Your task to perform on an android device: open a new tab in the chrome app Image 0: 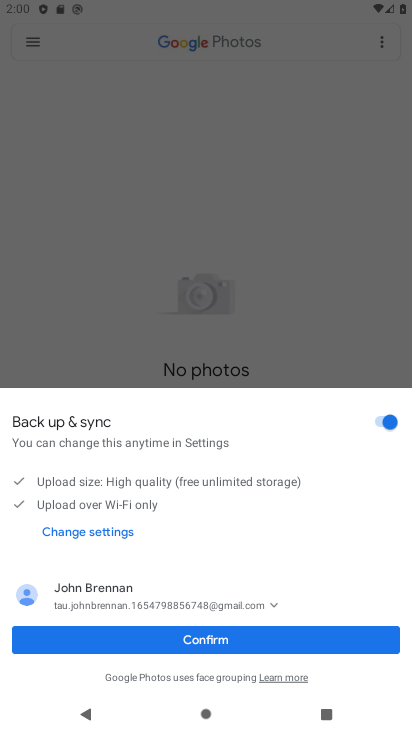
Step 0: press home button
Your task to perform on an android device: open a new tab in the chrome app Image 1: 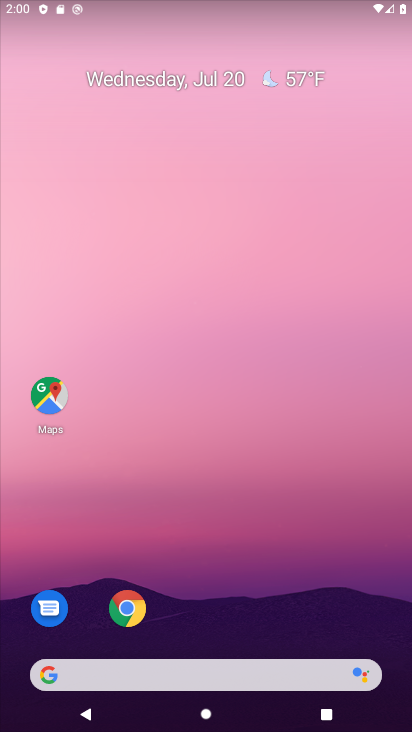
Step 1: click (126, 611)
Your task to perform on an android device: open a new tab in the chrome app Image 2: 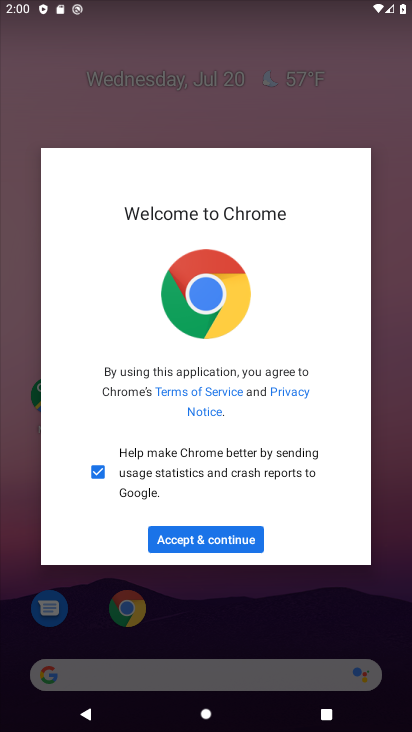
Step 2: click (200, 535)
Your task to perform on an android device: open a new tab in the chrome app Image 3: 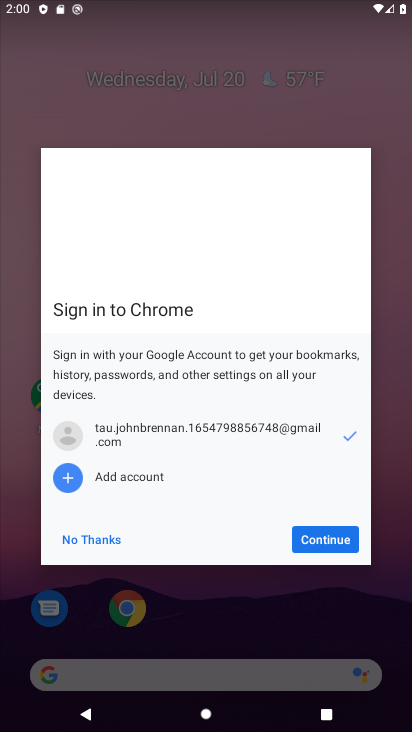
Step 3: click (319, 539)
Your task to perform on an android device: open a new tab in the chrome app Image 4: 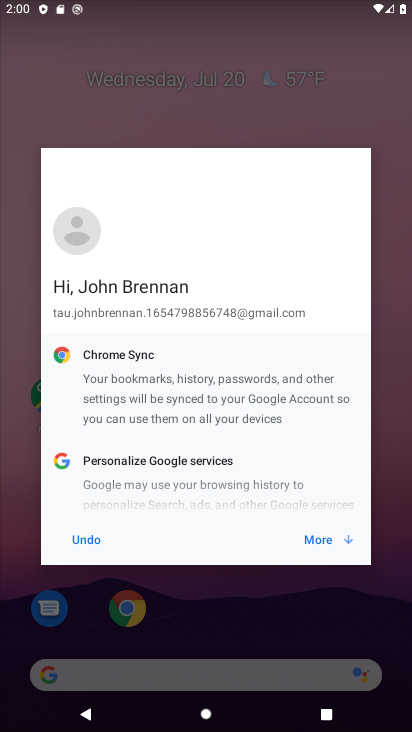
Step 4: click (319, 539)
Your task to perform on an android device: open a new tab in the chrome app Image 5: 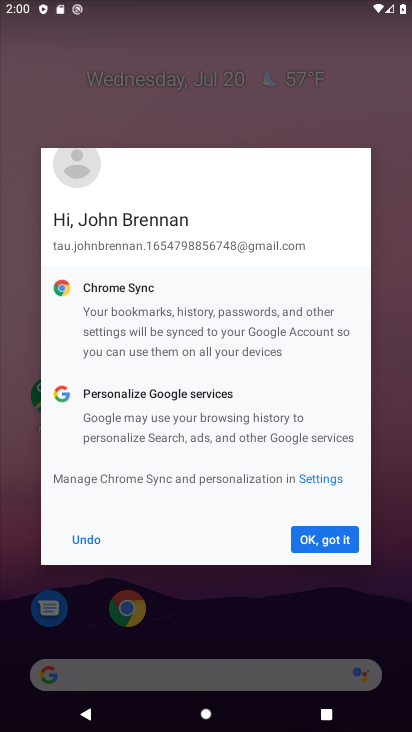
Step 5: click (319, 539)
Your task to perform on an android device: open a new tab in the chrome app Image 6: 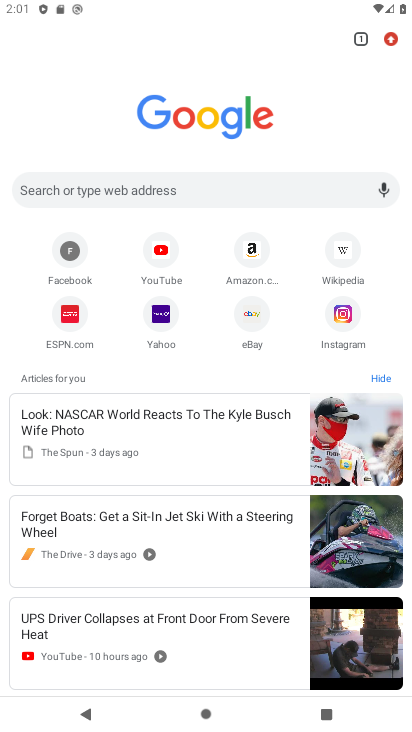
Step 6: click (362, 38)
Your task to perform on an android device: open a new tab in the chrome app Image 7: 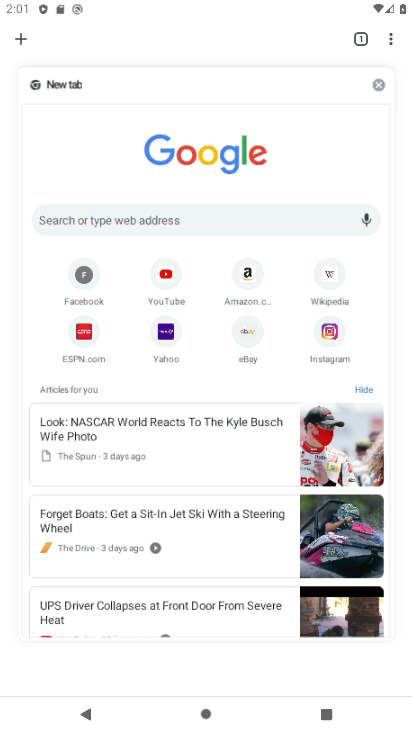
Step 7: click (19, 34)
Your task to perform on an android device: open a new tab in the chrome app Image 8: 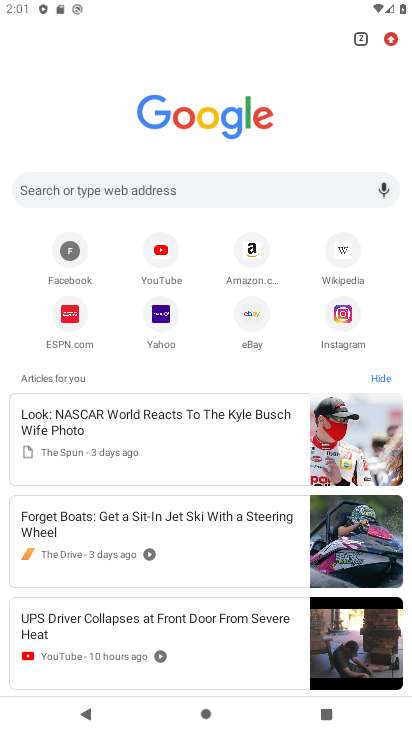
Step 8: task complete